Your task to perform on an android device: Open display settings Image 0: 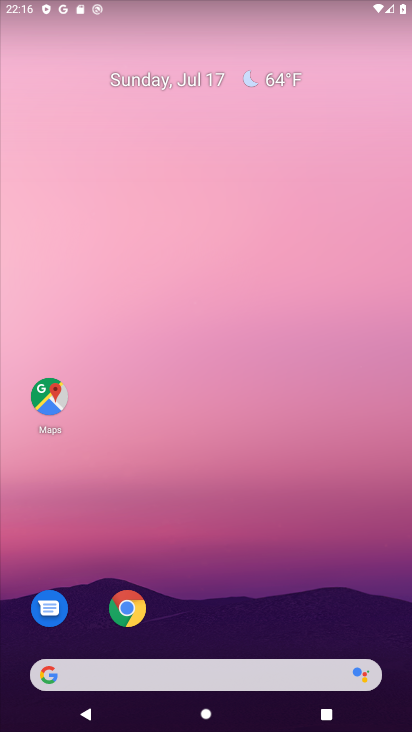
Step 0: drag from (260, 602) to (232, 220)
Your task to perform on an android device: Open display settings Image 1: 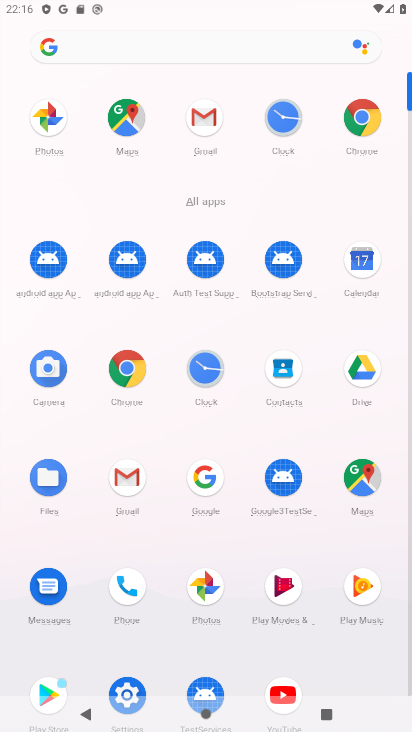
Step 1: click (128, 687)
Your task to perform on an android device: Open display settings Image 2: 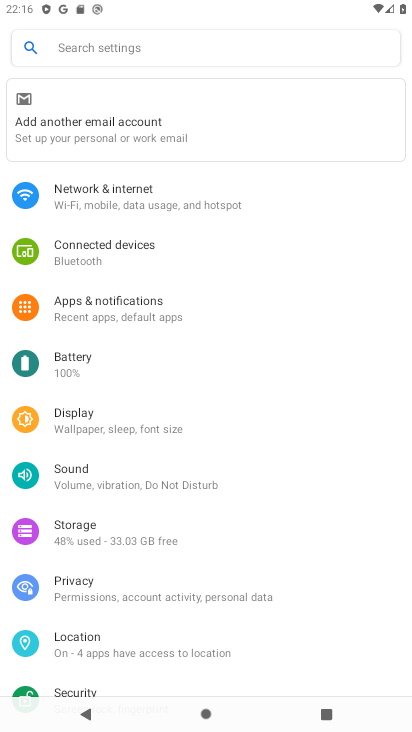
Step 2: click (128, 427)
Your task to perform on an android device: Open display settings Image 3: 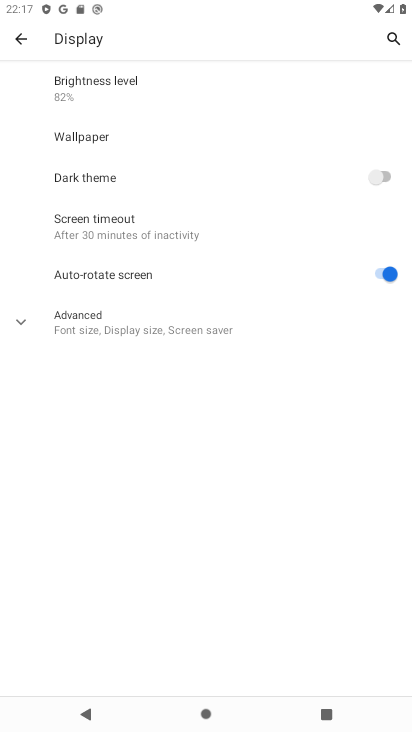
Step 3: task complete